Your task to perform on an android device: Go to battery settings Image 0: 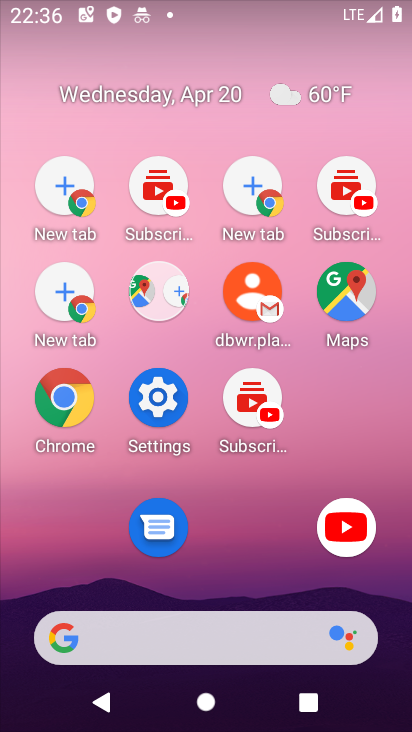
Step 0: drag from (201, 365) to (195, 6)
Your task to perform on an android device: Go to battery settings Image 1: 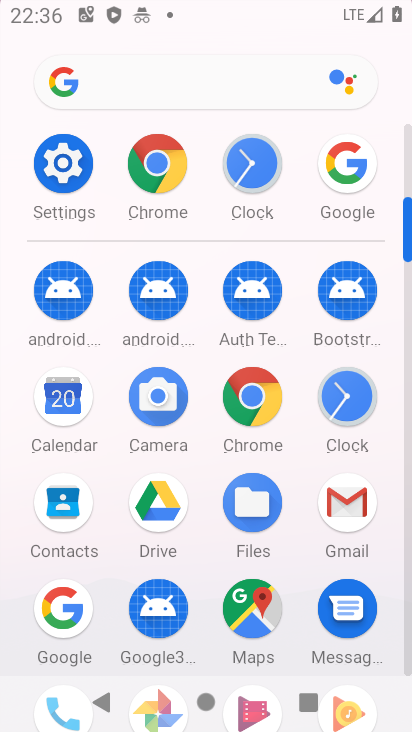
Step 1: drag from (226, 515) to (226, 18)
Your task to perform on an android device: Go to battery settings Image 2: 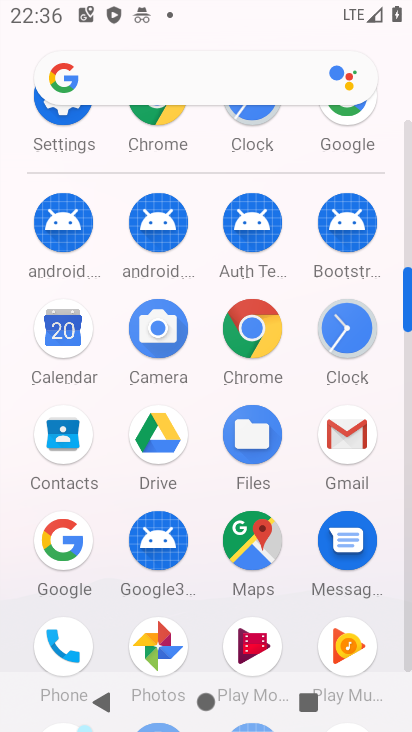
Step 2: click (57, 132)
Your task to perform on an android device: Go to battery settings Image 3: 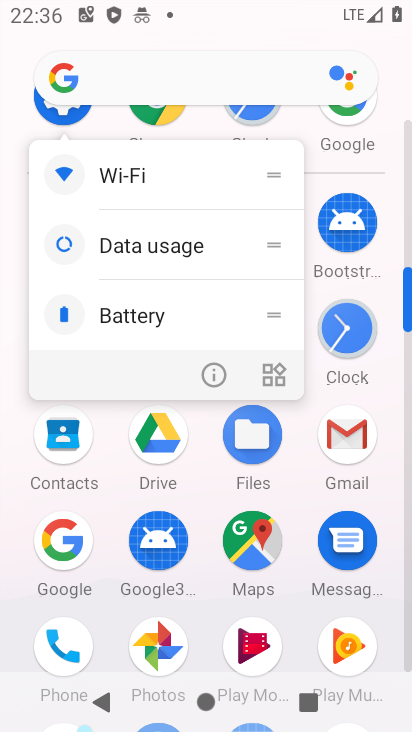
Step 3: click (53, 118)
Your task to perform on an android device: Go to battery settings Image 4: 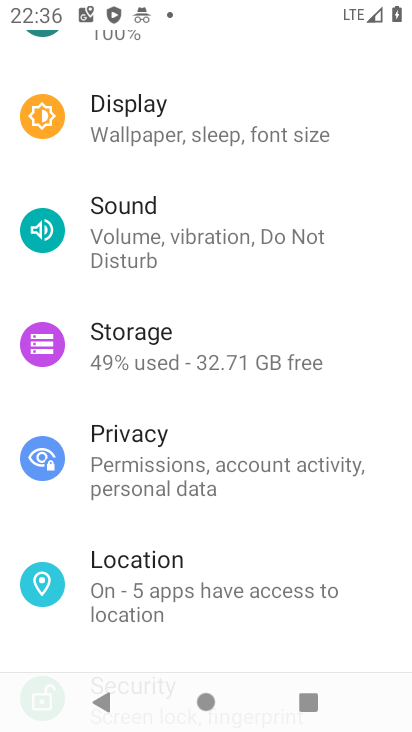
Step 4: drag from (171, 490) to (162, 240)
Your task to perform on an android device: Go to battery settings Image 5: 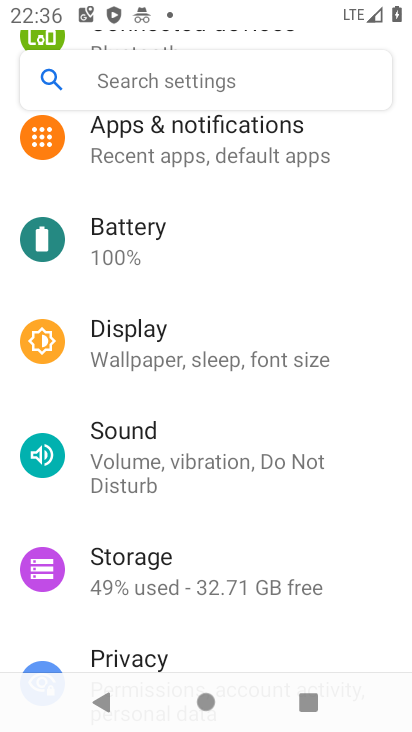
Step 5: drag from (148, 429) to (164, 172)
Your task to perform on an android device: Go to battery settings Image 6: 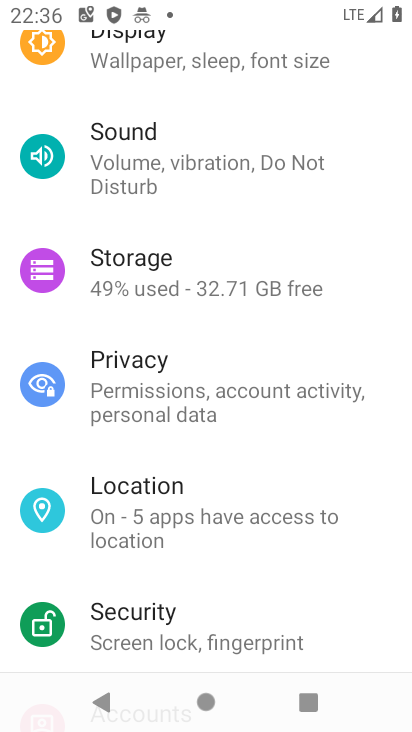
Step 6: drag from (163, 538) to (159, 126)
Your task to perform on an android device: Go to battery settings Image 7: 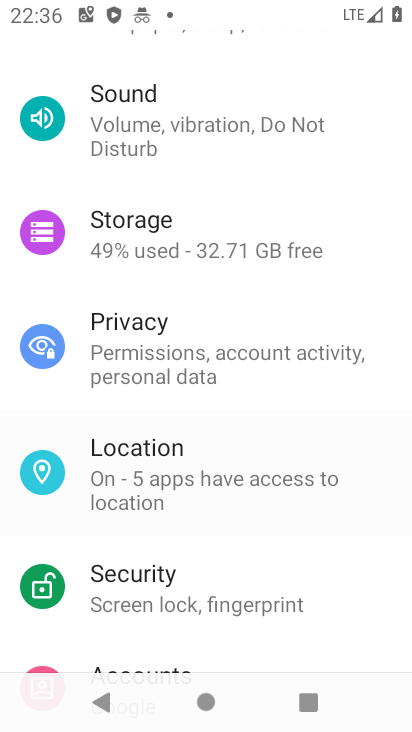
Step 7: drag from (143, 316) to (143, 151)
Your task to perform on an android device: Go to battery settings Image 8: 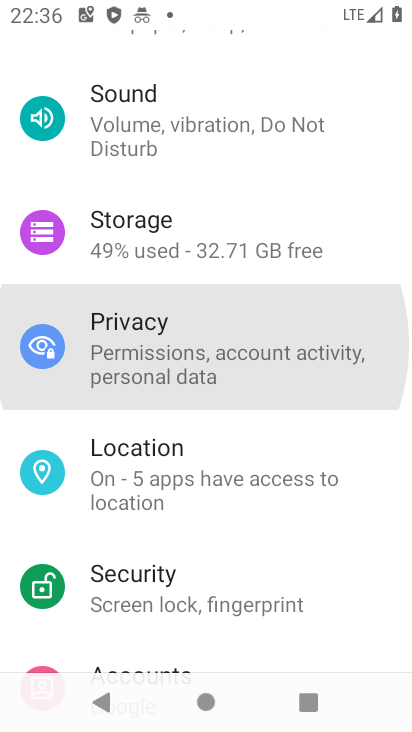
Step 8: drag from (172, 486) to (162, 166)
Your task to perform on an android device: Go to battery settings Image 9: 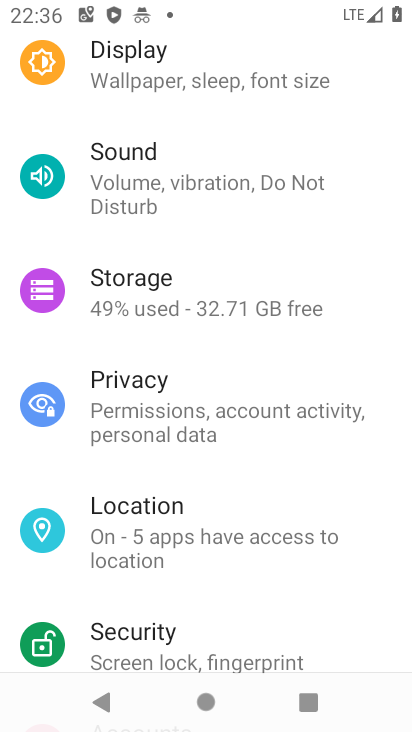
Step 9: drag from (194, 467) to (170, 141)
Your task to perform on an android device: Go to battery settings Image 10: 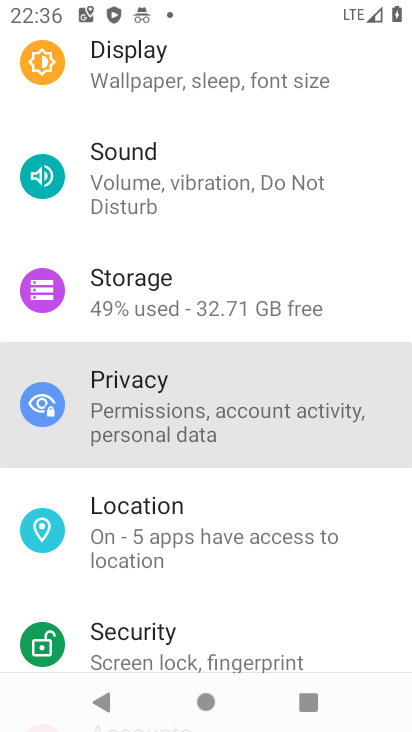
Step 10: drag from (167, 263) to (200, 541)
Your task to perform on an android device: Go to battery settings Image 11: 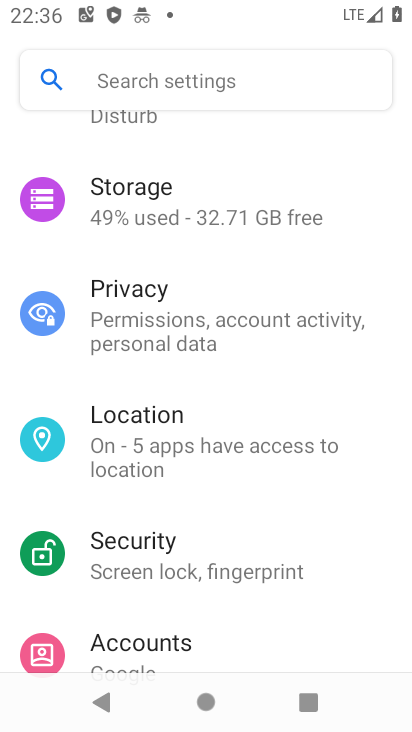
Step 11: drag from (181, 219) to (238, 581)
Your task to perform on an android device: Go to battery settings Image 12: 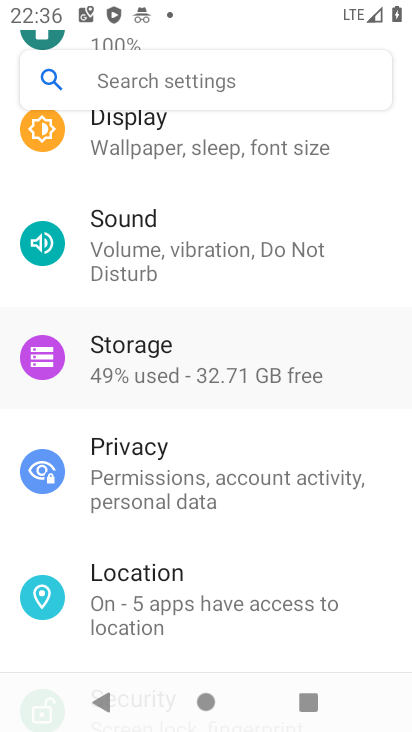
Step 12: drag from (229, 226) to (262, 568)
Your task to perform on an android device: Go to battery settings Image 13: 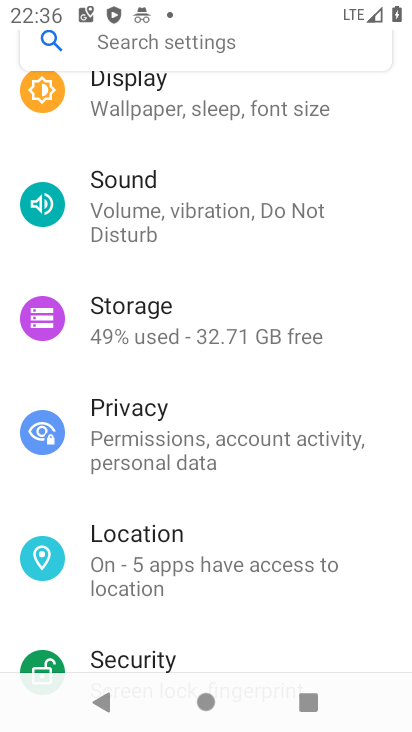
Step 13: drag from (193, 341) to (188, 467)
Your task to perform on an android device: Go to battery settings Image 14: 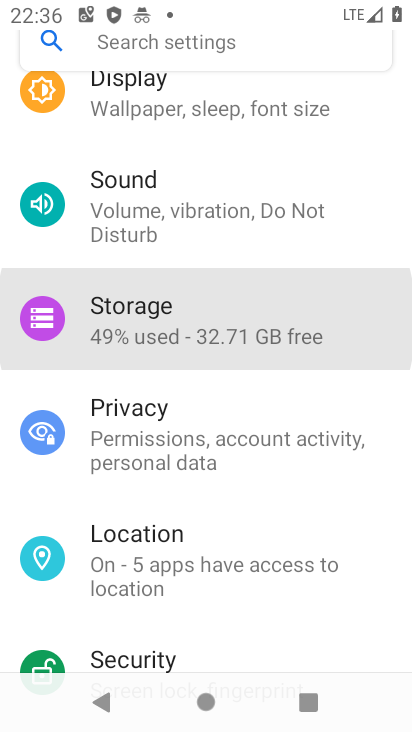
Step 14: drag from (141, 330) to (166, 514)
Your task to perform on an android device: Go to battery settings Image 15: 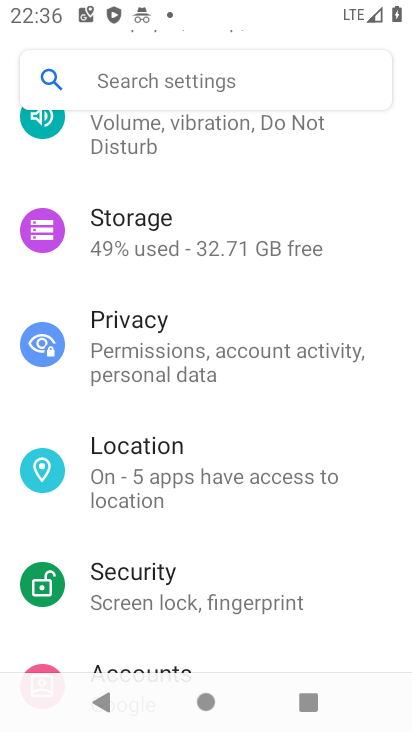
Step 15: drag from (158, 282) to (180, 521)
Your task to perform on an android device: Go to battery settings Image 16: 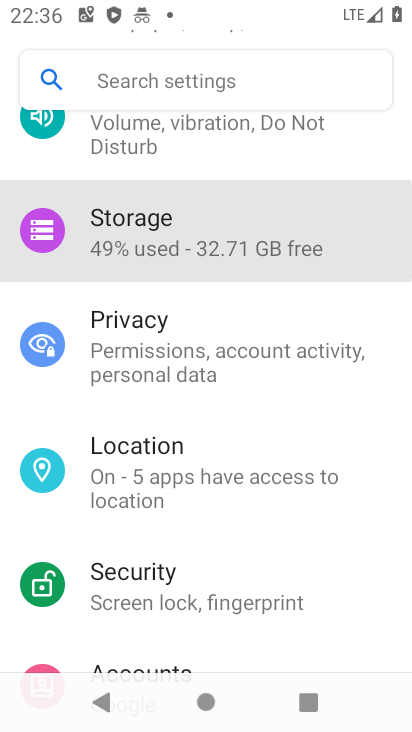
Step 16: drag from (170, 219) to (176, 439)
Your task to perform on an android device: Go to battery settings Image 17: 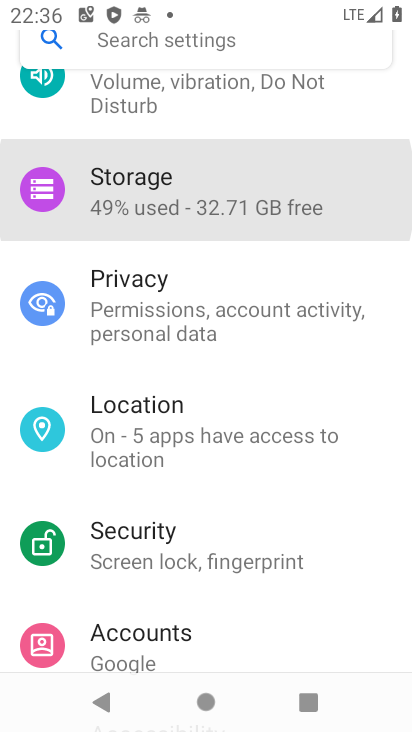
Step 17: drag from (186, 396) to (232, 577)
Your task to perform on an android device: Go to battery settings Image 18: 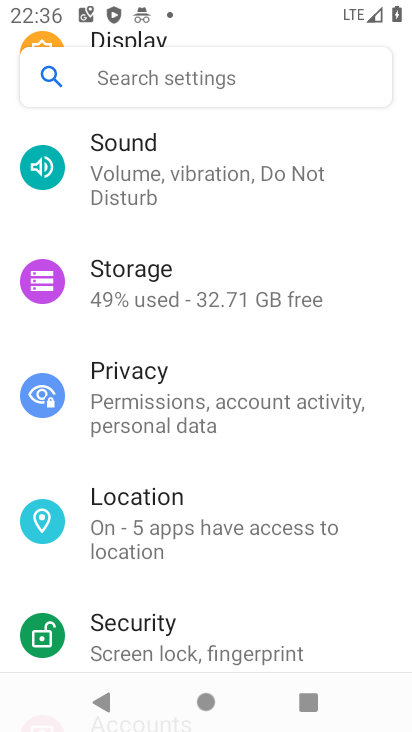
Step 18: drag from (219, 280) to (247, 652)
Your task to perform on an android device: Go to battery settings Image 19: 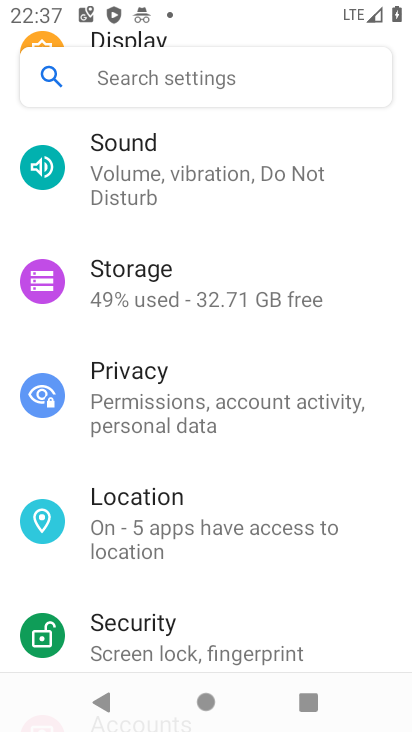
Step 19: drag from (182, 403) to (193, 605)
Your task to perform on an android device: Go to battery settings Image 20: 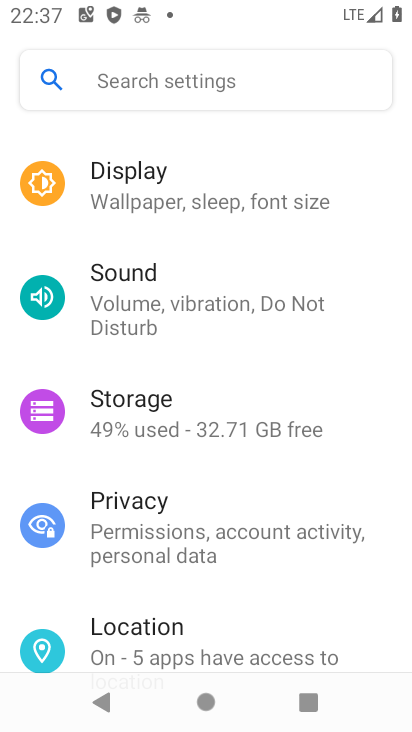
Step 20: drag from (153, 433) to (176, 603)
Your task to perform on an android device: Go to battery settings Image 21: 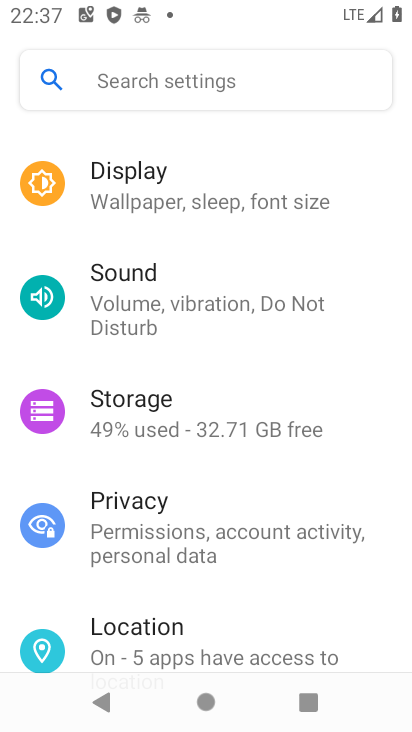
Step 21: drag from (137, 215) to (167, 633)
Your task to perform on an android device: Go to battery settings Image 22: 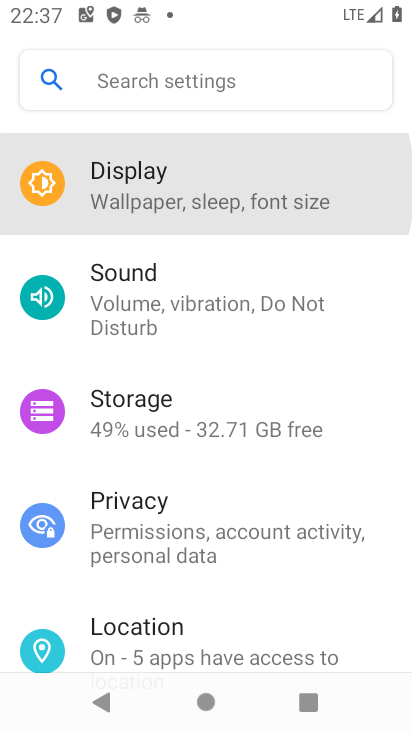
Step 22: drag from (185, 328) to (213, 641)
Your task to perform on an android device: Go to battery settings Image 23: 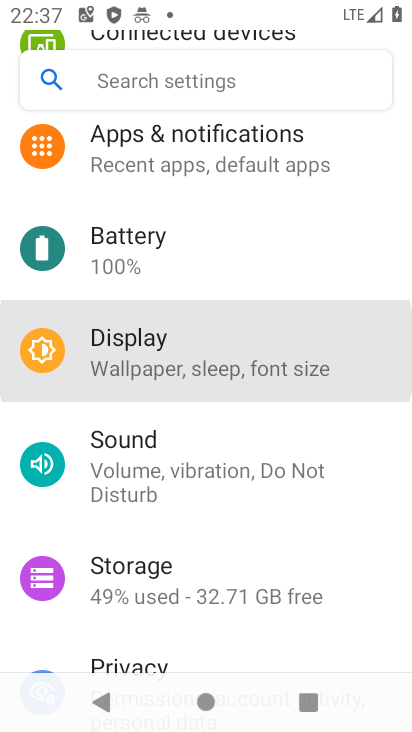
Step 23: drag from (193, 284) to (274, 727)
Your task to perform on an android device: Go to battery settings Image 24: 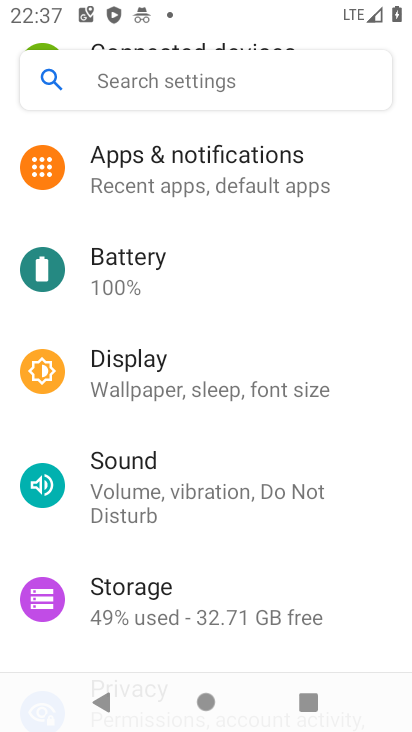
Step 24: click (142, 268)
Your task to perform on an android device: Go to battery settings Image 25: 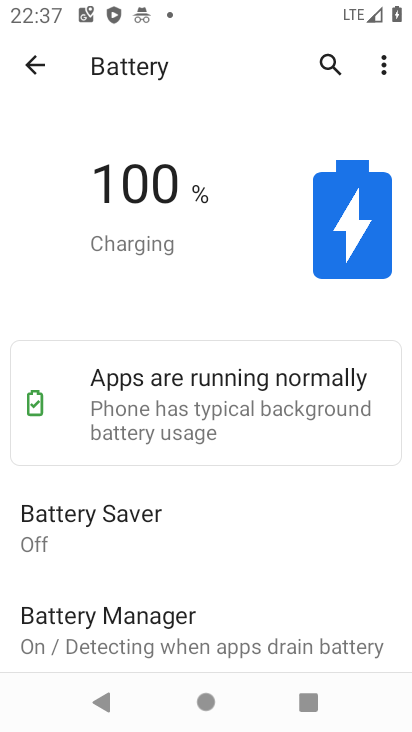
Step 25: task complete